Your task to perform on an android device: Clear the shopping cart on target. Search for duracell triple a on target, select the first entry, and add it to the cart. Image 0: 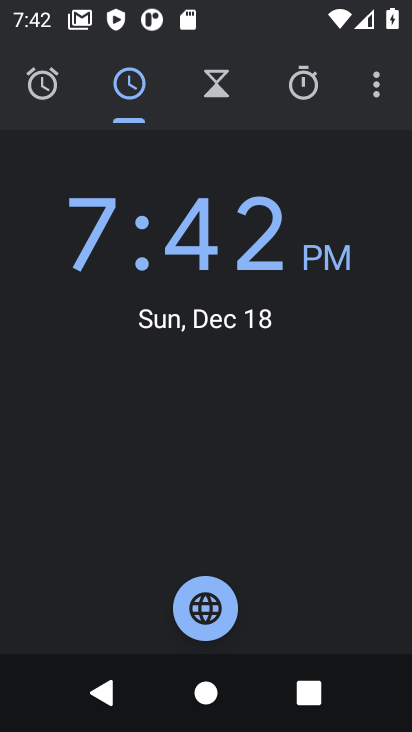
Step 0: press home button
Your task to perform on an android device: Clear the shopping cart on target. Search for duracell triple a on target, select the first entry, and add it to the cart. Image 1: 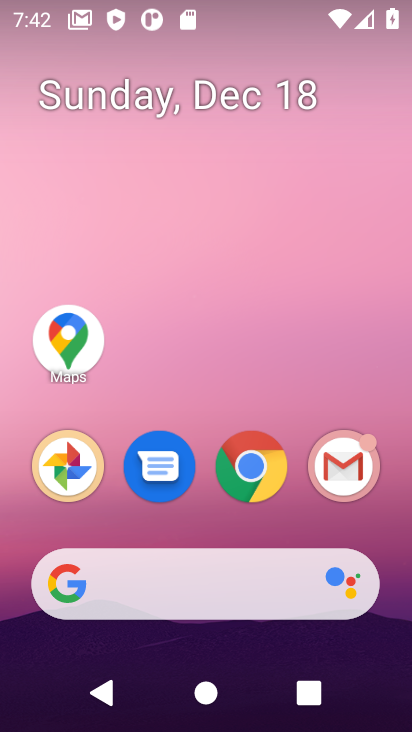
Step 1: click (270, 454)
Your task to perform on an android device: Clear the shopping cart on target. Search for duracell triple a on target, select the first entry, and add it to the cart. Image 2: 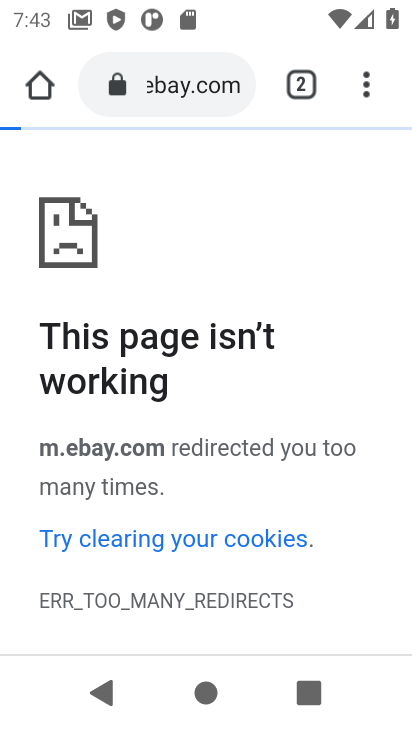
Step 2: click (201, 79)
Your task to perform on an android device: Clear the shopping cart on target. Search for duracell triple a on target, select the first entry, and add it to the cart. Image 3: 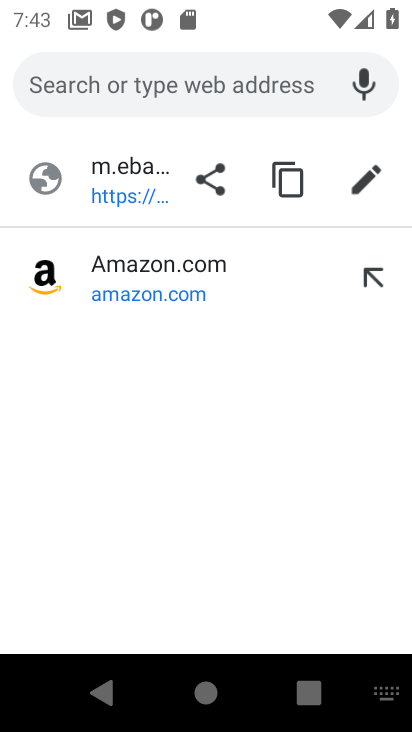
Step 3: type "TARGET"
Your task to perform on an android device: Clear the shopping cart on target. Search for duracell triple a on target, select the first entry, and add it to the cart. Image 4: 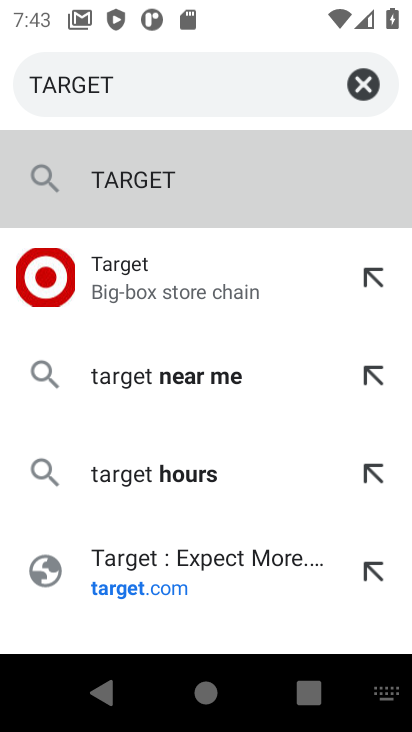
Step 4: click (214, 272)
Your task to perform on an android device: Clear the shopping cart on target. Search for duracell triple a on target, select the first entry, and add it to the cart. Image 5: 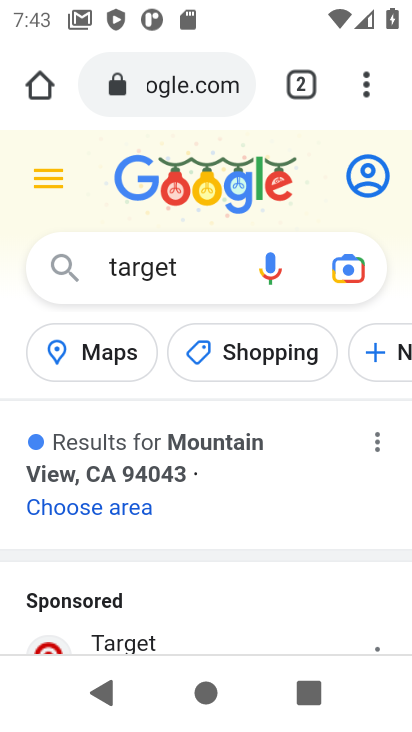
Step 5: drag from (201, 552) to (183, 116)
Your task to perform on an android device: Clear the shopping cart on target. Search for duracell triple a on target, select the first entry, and add it to the cart. Image 6: 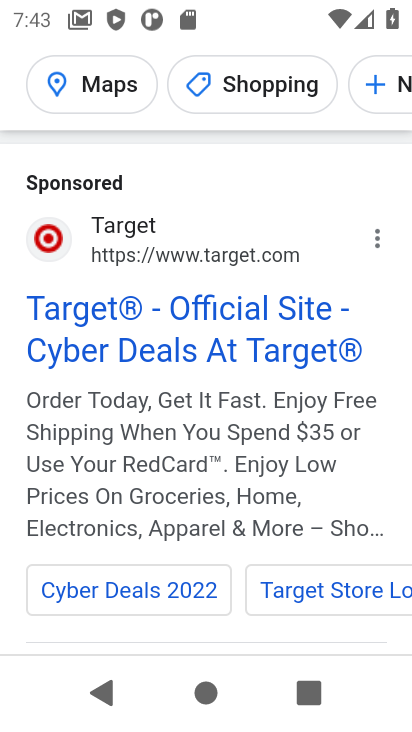
Step 6: click (149, 318)
Your task to perform on an android device: Clear the shopping cart on target. Search for duracell triple a on target, select the first entry, and add it to the cart. Image 7: 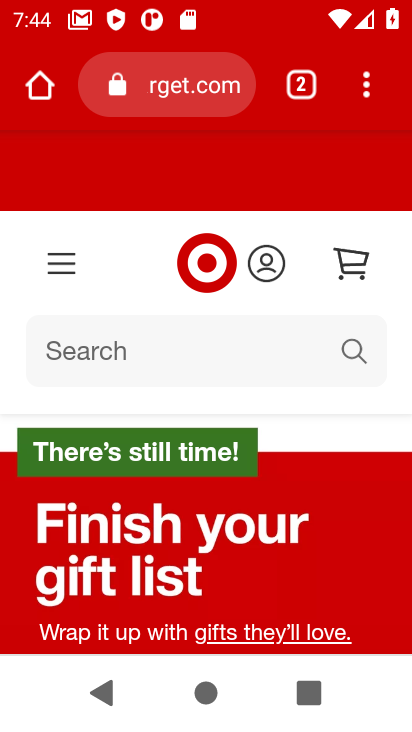
Step 7: click (258, 350)
Your task to perform on an android device: Clear the shopping cart on target. Search for duracell triple a on target, select the first entry, and add it to the cart. Image 8: 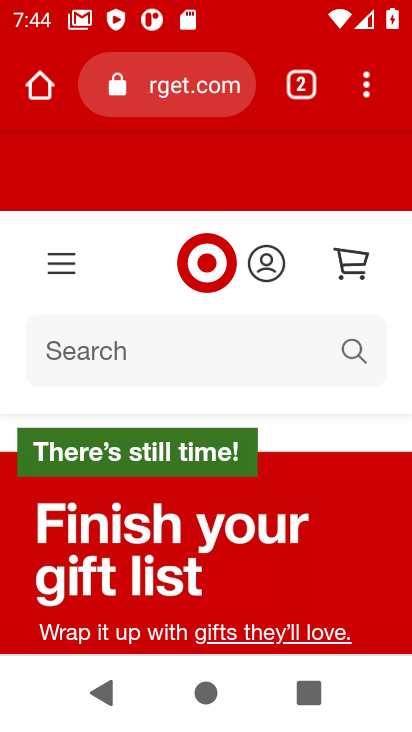
Step 8: click (138, 351)
Your task to perform on an android device: Clear the shopping cart on target. Search for duracell triple a on target, select the first entry, and add it to the cart. Image 9: 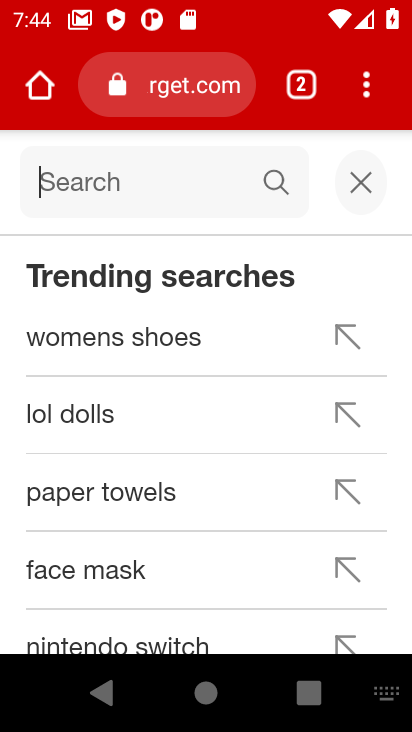
Step 9: type "duracell triple a "
Your task to perform on an android device: Clear the shopping cart on target. Search for duracell triple a on target, select the first entry, and add it to the cart. Image 10: 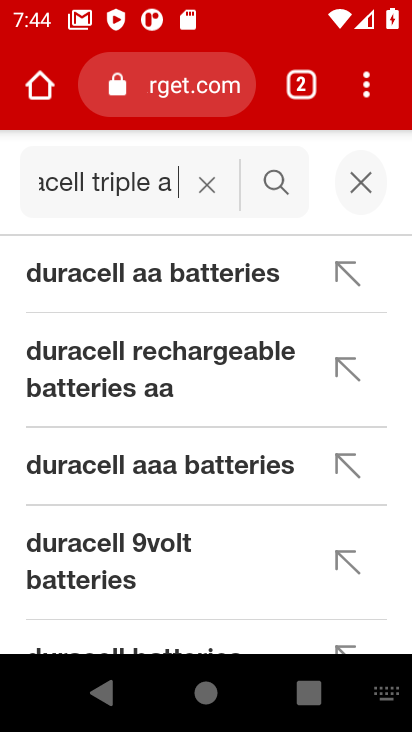
Step 10: click (133, 272)
Your task to perform on an android device: Clear the shopping cart on target. Search for duracell triple a on target, select the first entry, and add it to the cart. Image 11: 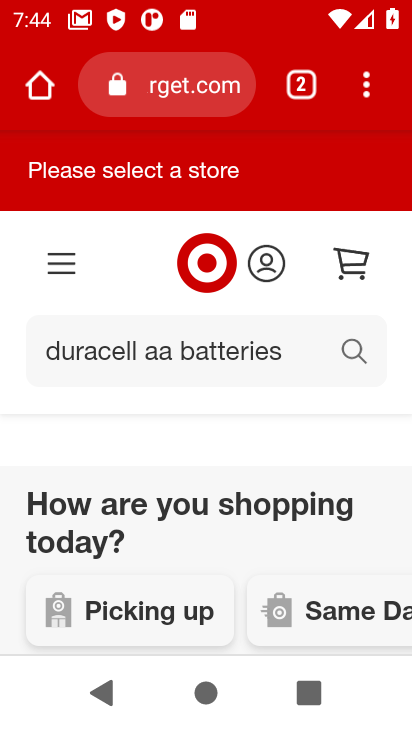
Step 11: click (340, 357)
Your task to perform on an android device: Clear the shopping cart on target. Search for duracell triple a on target, select the first entry, and add it to the cart. Image 12: 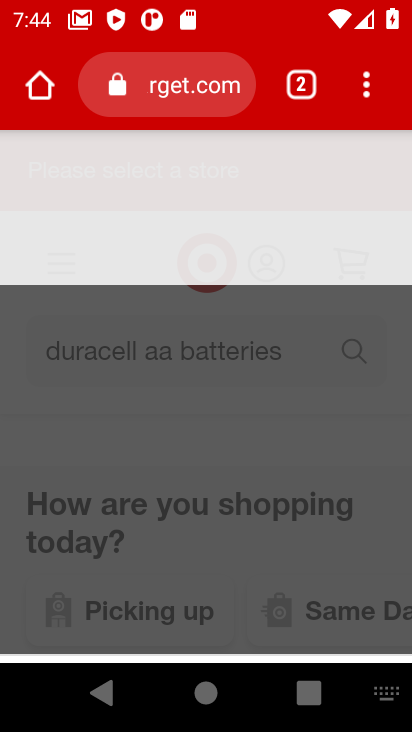
Step 12: click (340, 357)
Your task to perform on an android device: Clear the shopping cart on target. Search for duracell triple a on target, select the first entry, and add it to the cart. Image 13: 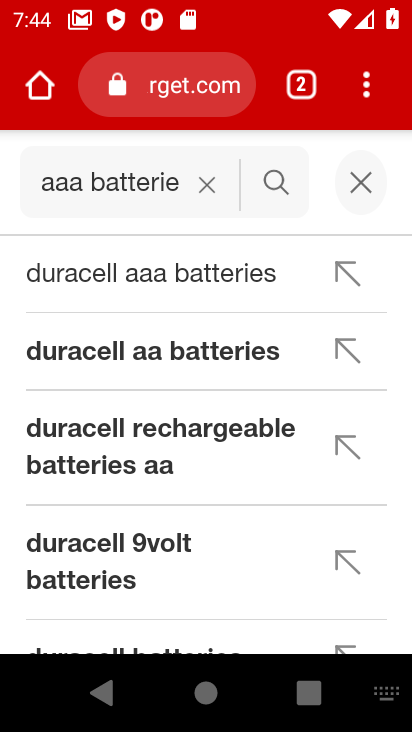
Step 13: click (181, 274)
Your task to perform on an android device: Clear the shopping cart on target. Search for duracell triple a on target, select the first entry, and add it to the cart. Image 14: 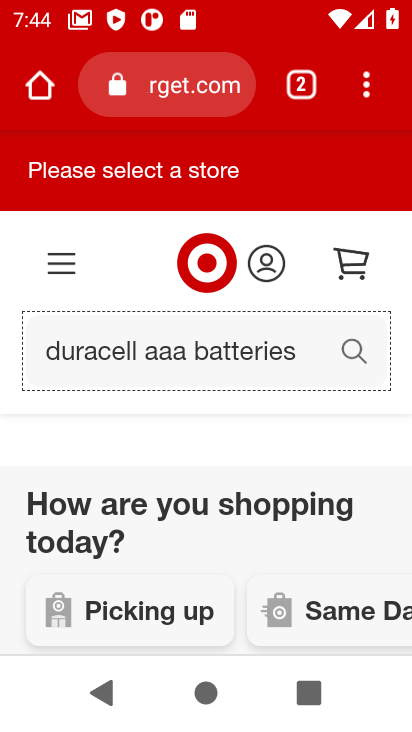
Step 14: drag from (206, 554) to (221, 92)
Your task to perform on an android device: Clear the shopping cart on target. Search for duracell triple a on target, select the first entry, and add it to the cart. Image 15: 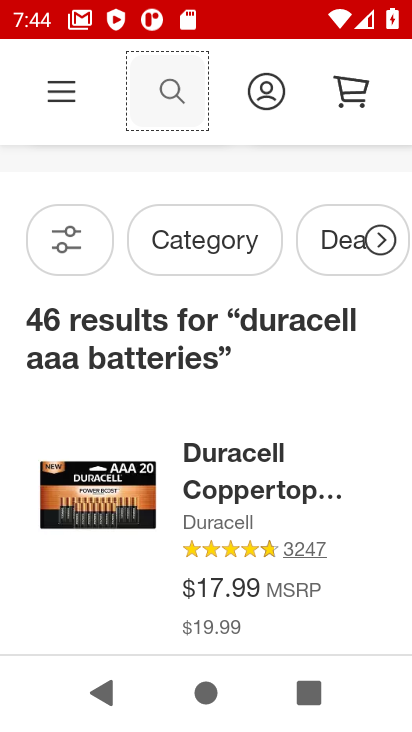
Step 15: click (319, 473)
Your task to perform on an android device: Clear the shopping cart on target. Search for duracell triple a on target, select the first entry, and add it to the cart. Image 16: 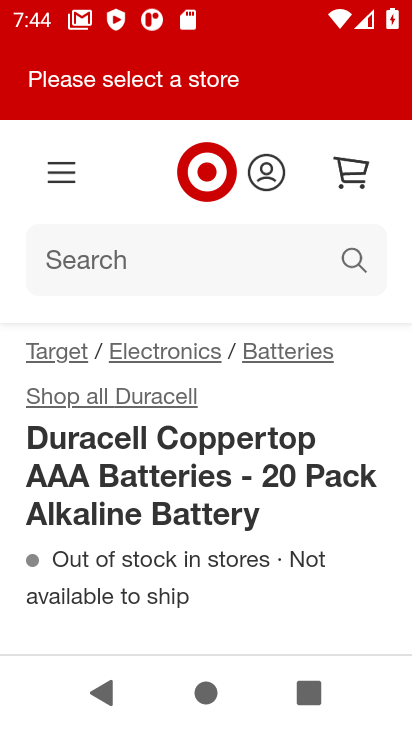
Step 16: drag from (279, 544) to (257, 168)
Your task to perform on an android device: Clear the shopping cart on target. Search for duracell triple a on target, select the first entry, and add it to the cart. Image 17: 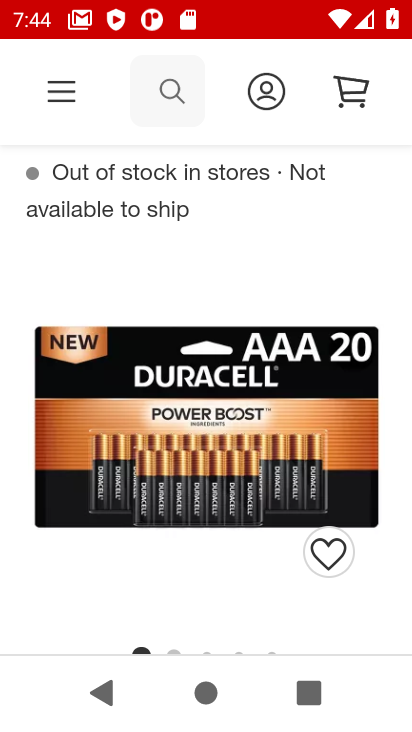
Step 17: drag from (241, 553) to (253, 87)
Your task to perform on an android device: Clear the shopping cart on target. Search for duracell triple a on target, select the first entry, and add it to the cart. Image 18: 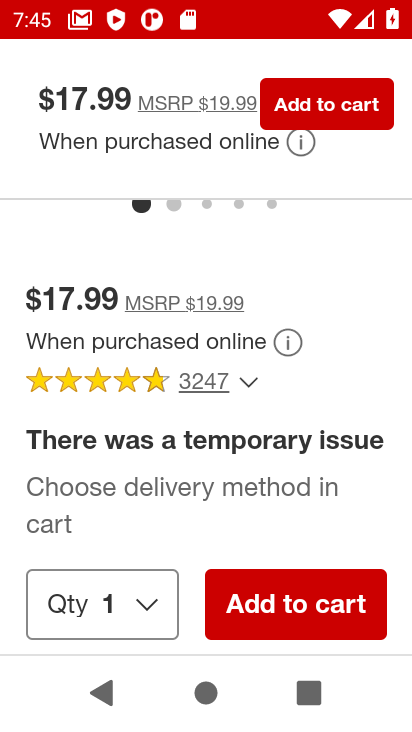
Step 18: click (284, 604)
Your task to perform on an android device: Clear the shopping cart on target. Search for duracell triple a on target, select the first entry, and add it to the cart. Image 19: 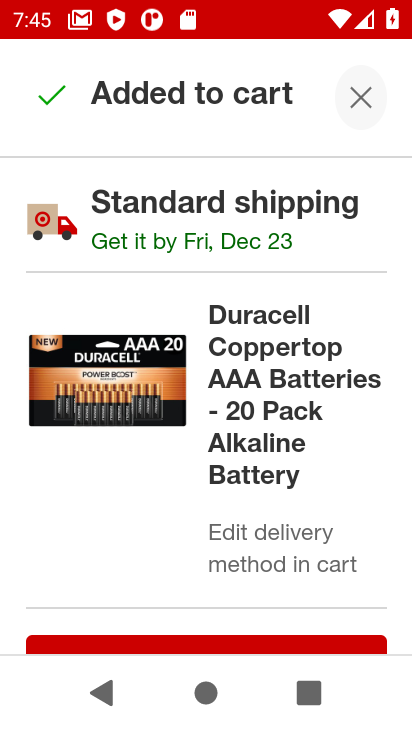
Step 19: task complete